Your task to perform on an android device: Show me popular videos on Youtube Image 0: 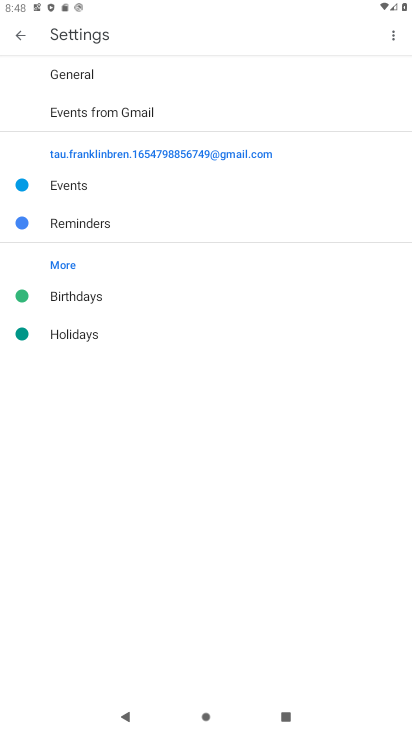
Step 0: press home button
Your task to perform on an android device: Show me popular videos on Youtube Image 1: 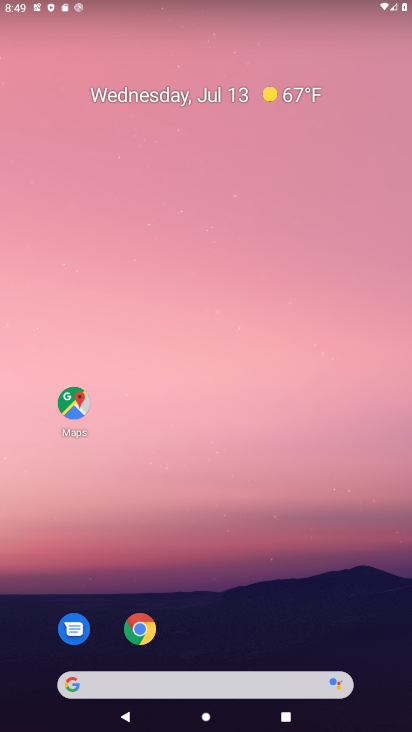
Step 1: drag from (171, 626) to (197, 51)
Your task to perform on an android device: Show me popular videos on Youtube Image 2: 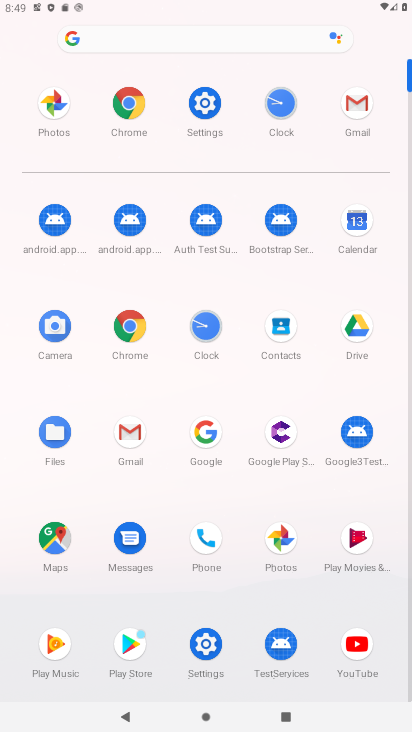
Step 2: click (347, 658)
Your task to perform on an android device: Show me popular videos on Youtube Image 3: 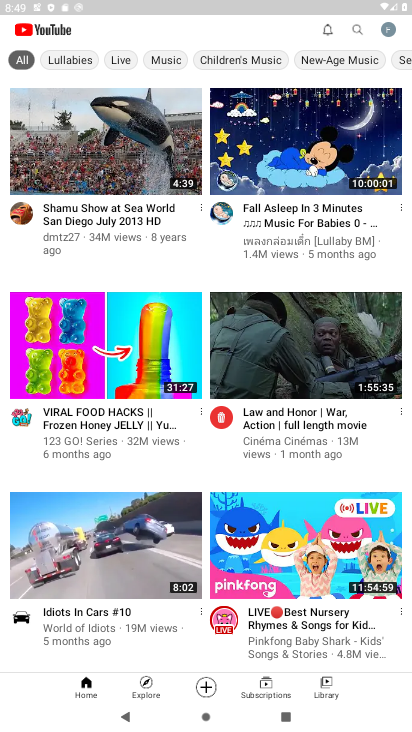
Step 3: click (20, 60)
Your task to perform on an android device: Show me popular videos on Youtube Image 4: 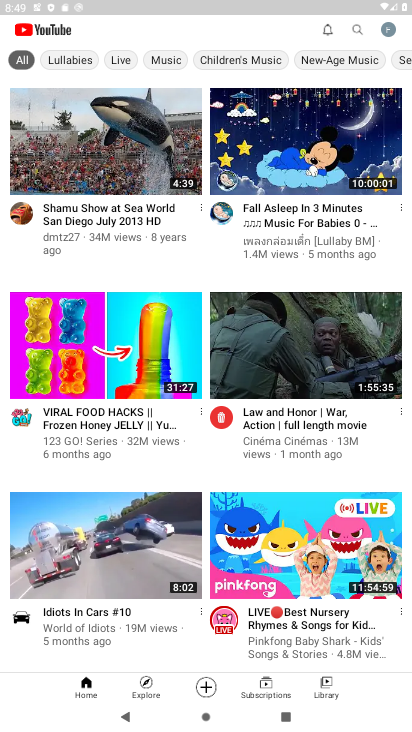
Step 4: click (22, 57)
Your task to perform on an android device: Show me popular videos on Youtube Image 5: 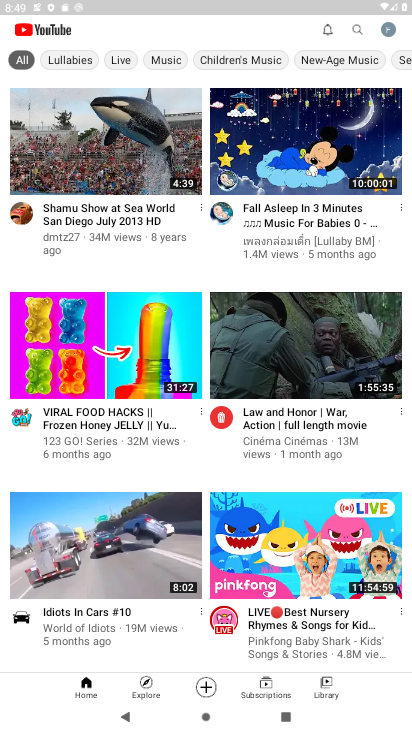
Step 5: click (151, 685)
Your task to perform on an android device: Show me popular videos on Youtube Image 6: 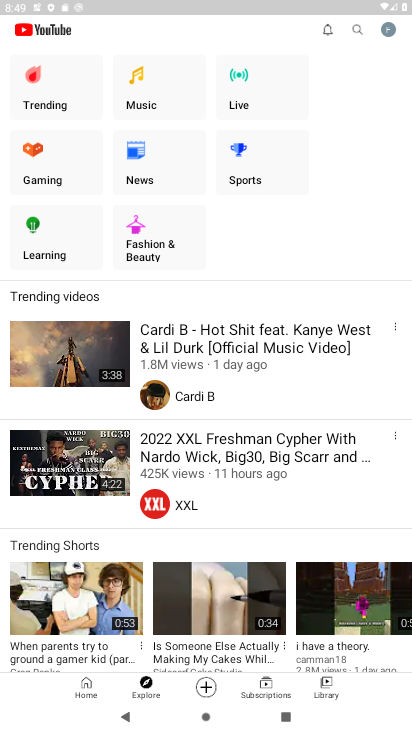
Step 6: click (43, 81)
Your task to perform on an android device: Show me popular videos on Youtube Image 7: 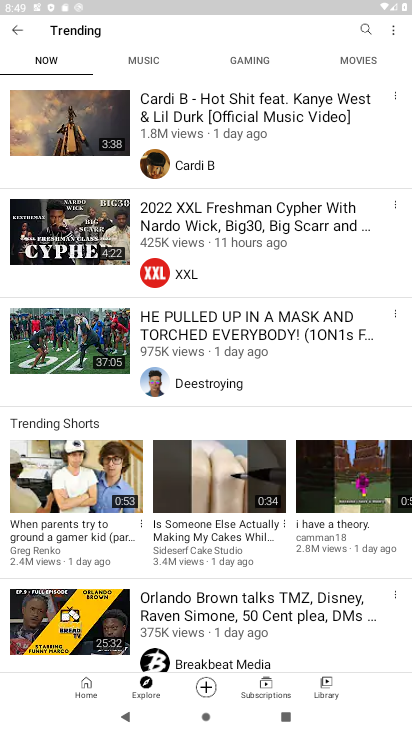
Step 7: task complete